Your task to perform on an android device: uninstall "PUBG MOBILE" Image 0: 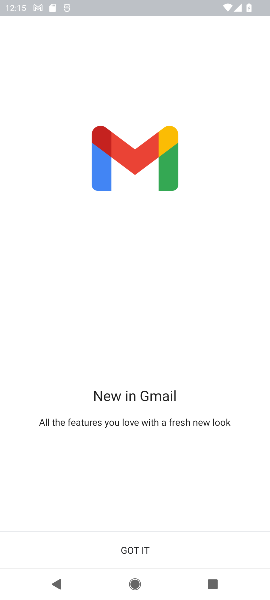
Step 0: press home button
Your task to perform on an android device: uninstall "PUBG MOBILE" Image 1: 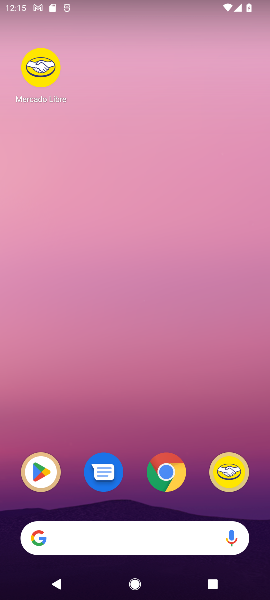
Step 1: click (30, 472)
Your task to perform on an android device: uninstall "PUBG MOBILE" Image 2: 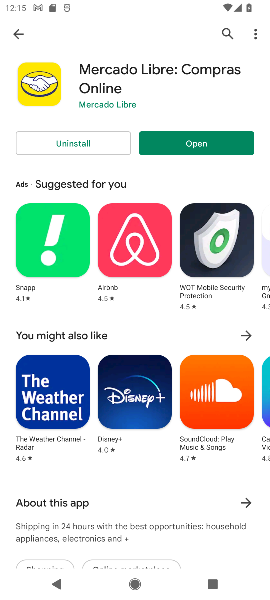
Step 2: click (225, 33)
Your task to perform on an android device: uninstall "PUBG MOBILE" Image 3: 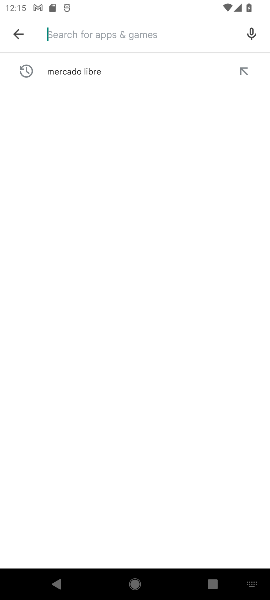
Step 3: type "pubg mobile"
Your task to perform on an android device: uninstall "PUBG MOBILE" Image 4: 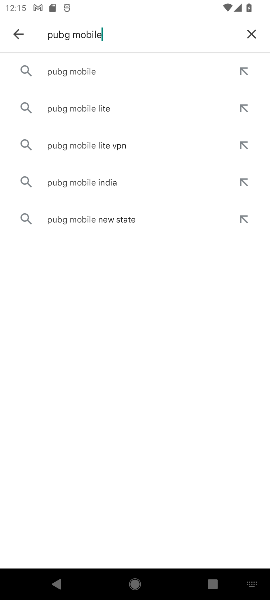
Step 4: click (135, 70)
Your task to perform on an android device: uninstall "PUBG MOBILE" Image 5: 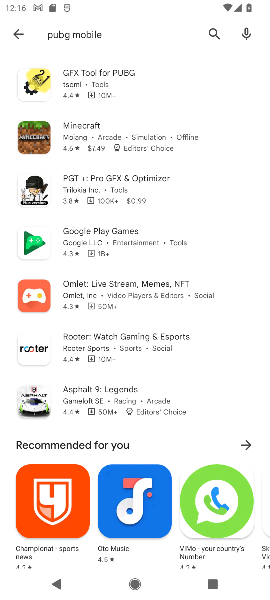
Step 5: task complete